Your task to perform on an android device: turn on translation in the chrome app Image 0: 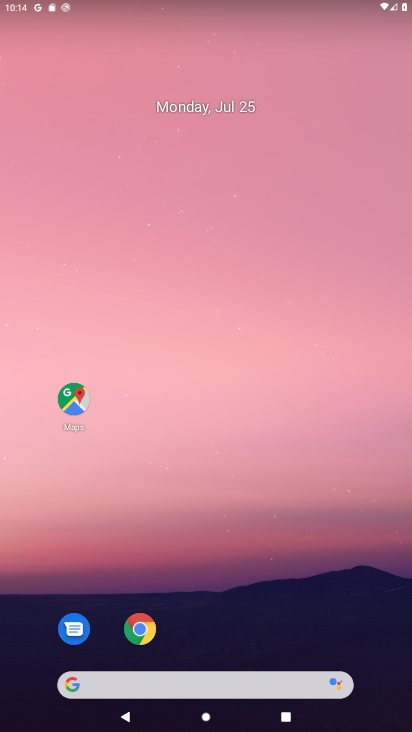
Step 0: click (141, 640)
Your task to perform on an android device: turn on translation in the chrome app Image 1: 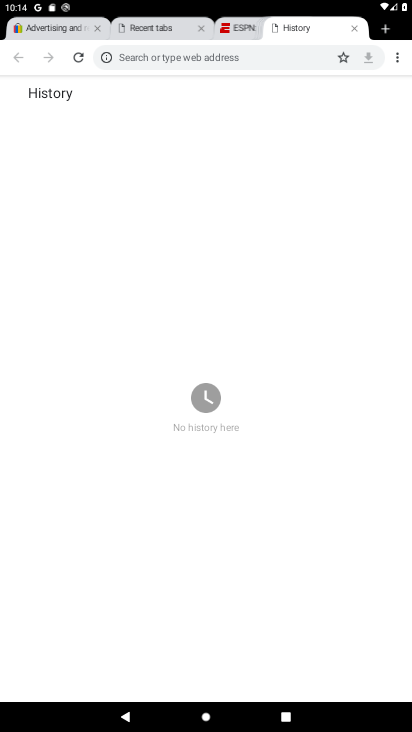
Step 1: click (401, 53)
Your task to perform on an android device: turn on translation in the chrome app Image 2: 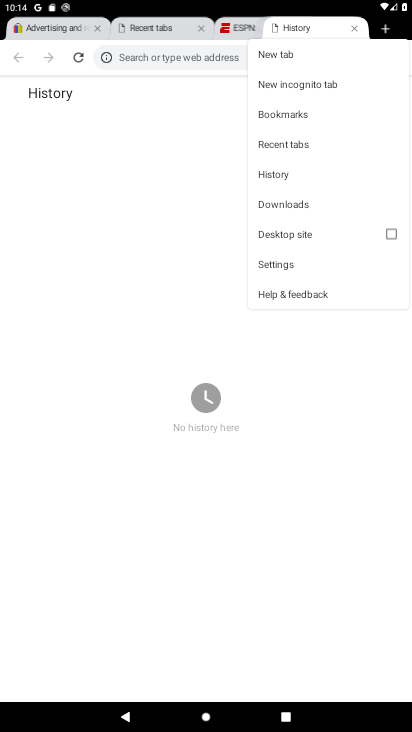
Step 2: click (269, 265)
Your task to perform on an android device: turn on translation in the chrome app Image 3: 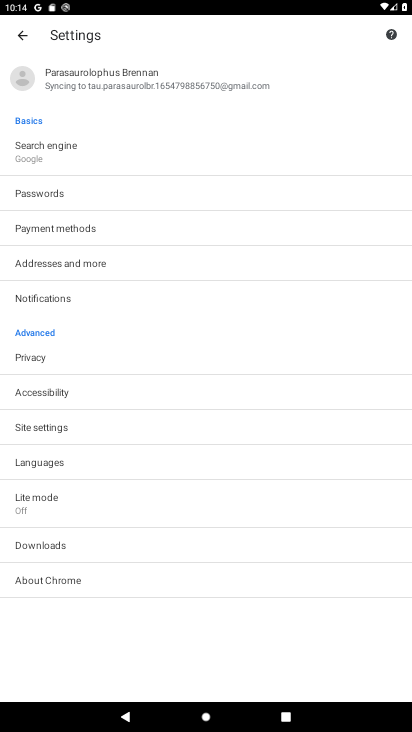
Step 3: click (67, 466)
Your task to perform on an android device: turn on translation in the chrome app Image 4: 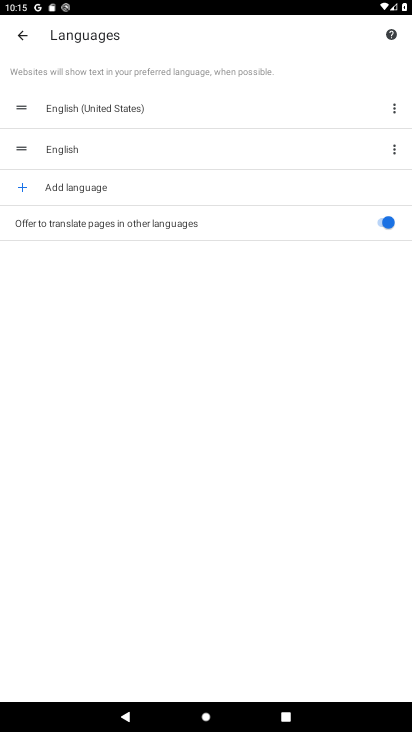
Step 4: task complete